Your task to perform on an android device: open app "Grab" (install if not already installed), go to login, and select forgot password Image 0: 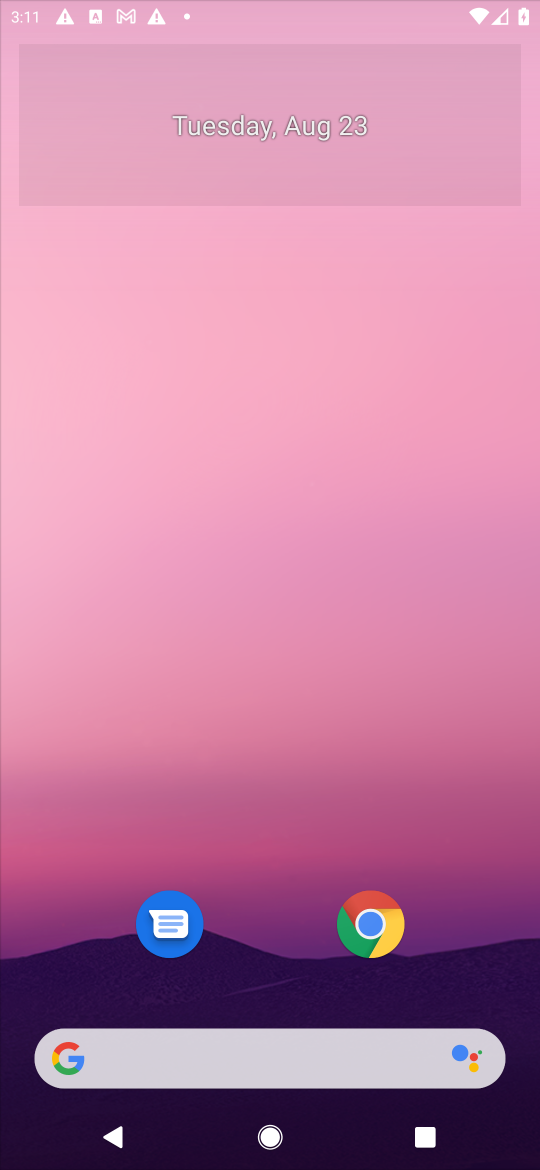
Step 0: press home button
Your task to perform on an android device: open app "Grab" (install if not already installed), go to login, and select forgot password Image 1: 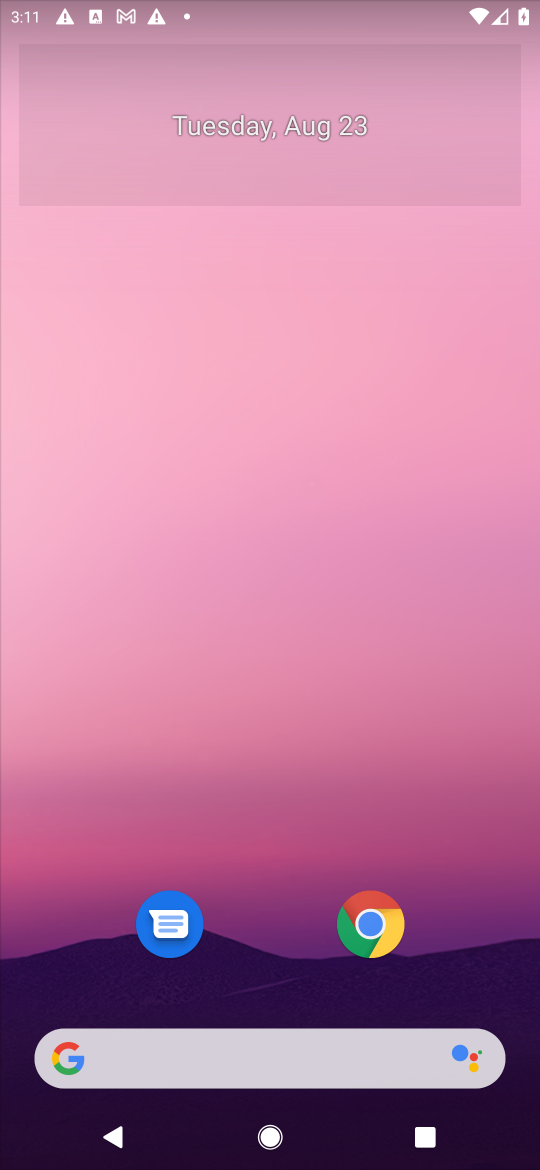
Step 1: drag from (466, 969) to (443, 150)
Your task to perform on an android device: open app "Grab" (install if not already installed), go to login, and select forgot password Image 2: 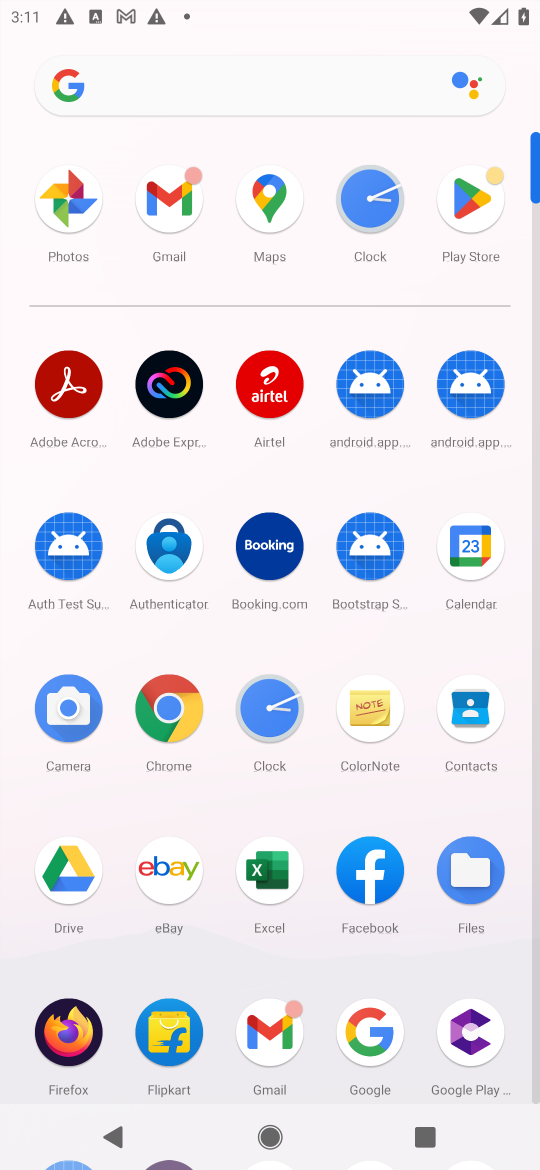
Step 2: click (465, 201)
Your task to perform on an android device: open app "Grab" (install if not already installed), go to login, and select forgot password Image 3: 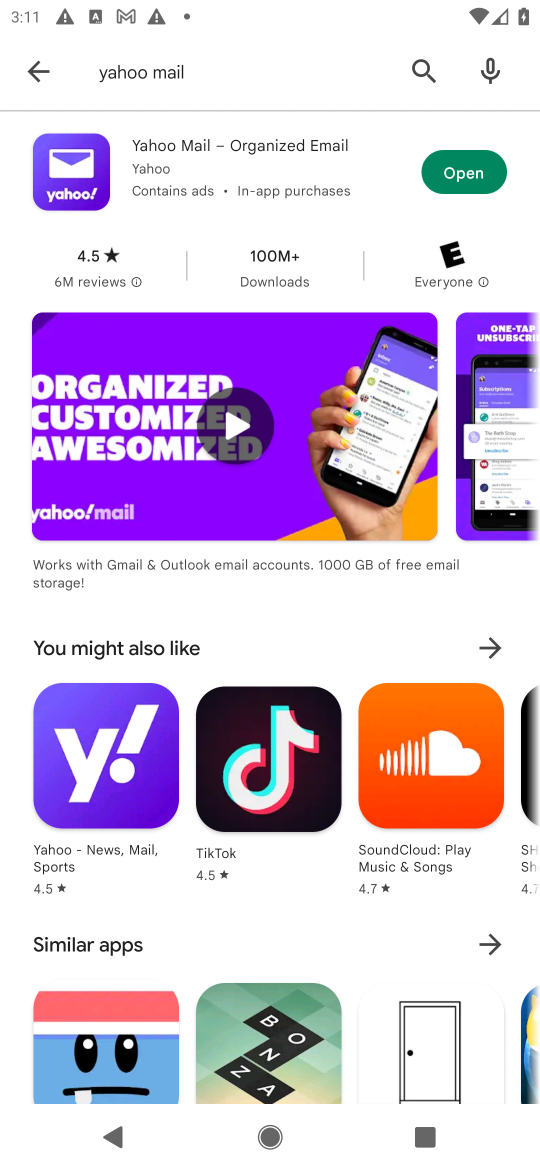
Step 3: press back button
Your task to perform on an android device: open app "Grab" (install if not already installed), go to login, and select forgot password Image 4: 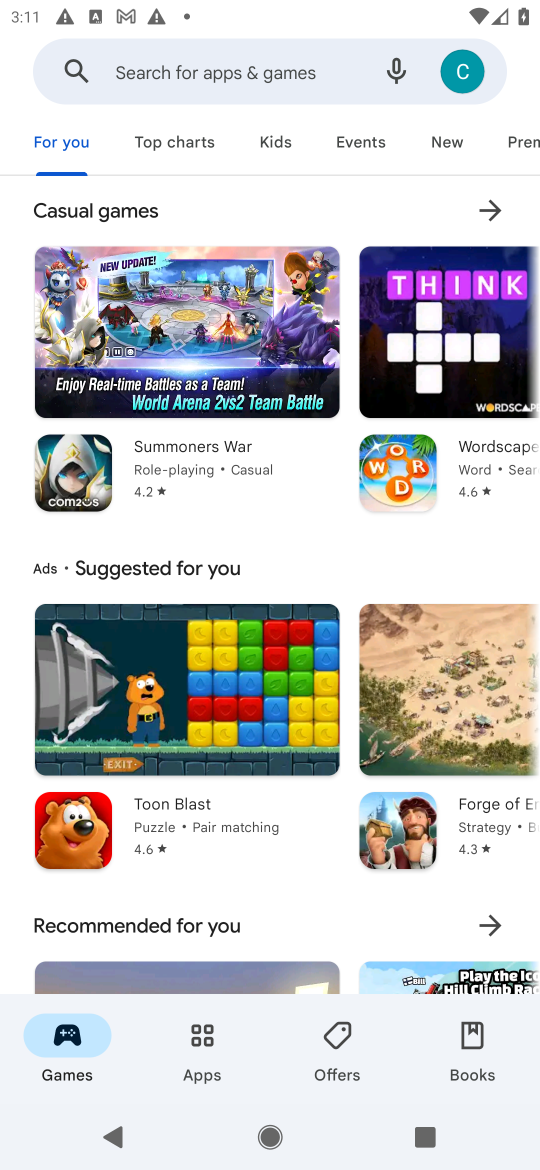
Step 4: click (288, 68)
Your task to perform on an android device: open app "Grab" (install if not already installed), go to login, and select forgot password Image 5: 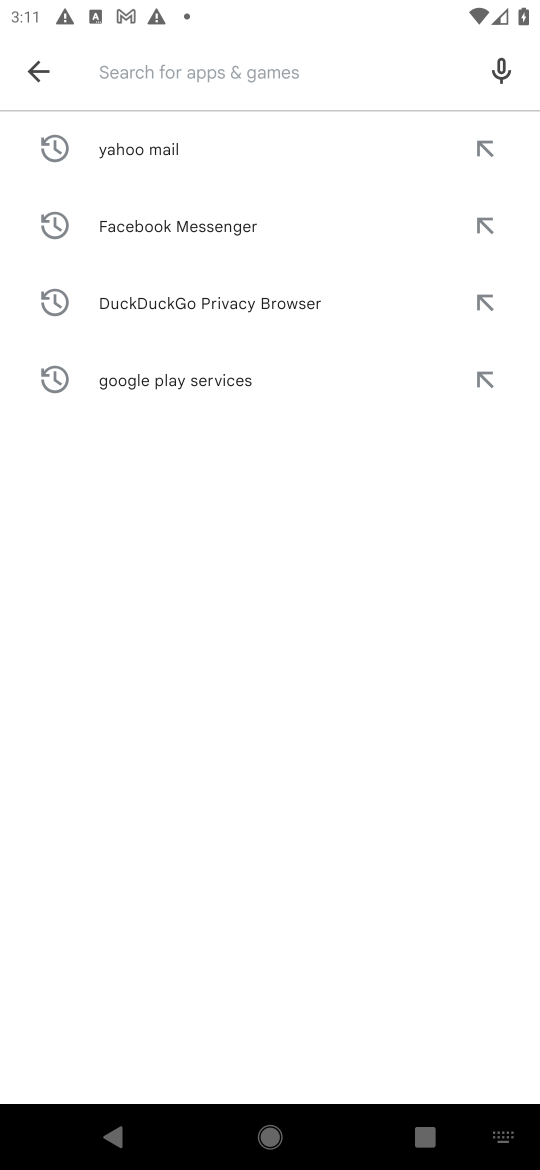
Step 5: press enter
Your task to perform on an android device: open app "Grab" (install if not already installed), go to login, and select forgot password Image 6: 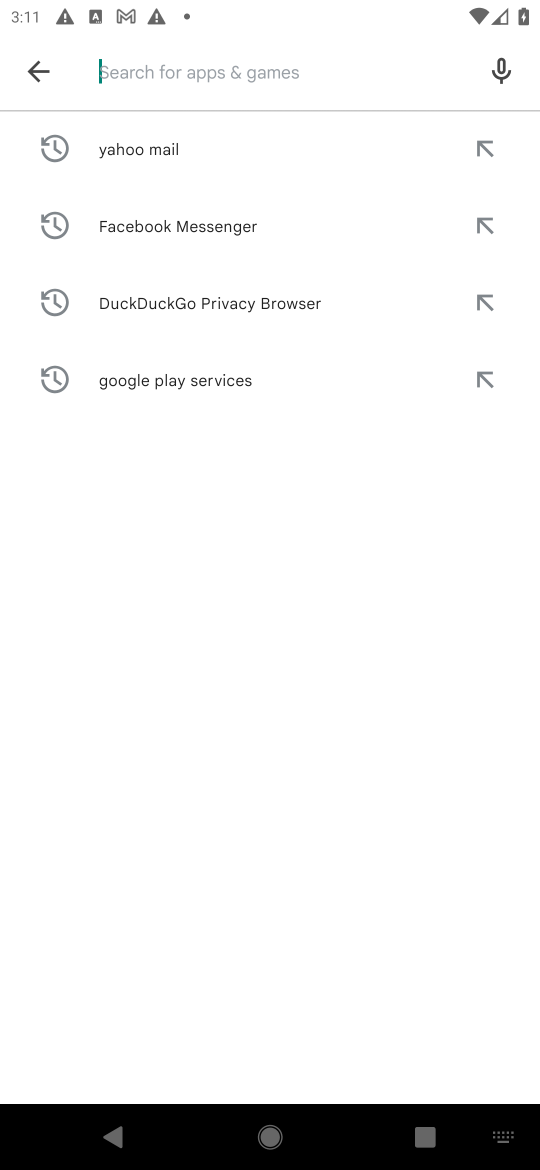
Step 6: type "grab"
Your task to perform on an android device: open app "Grab" (install if not already installed), go to login, and select forgot password Image 7: 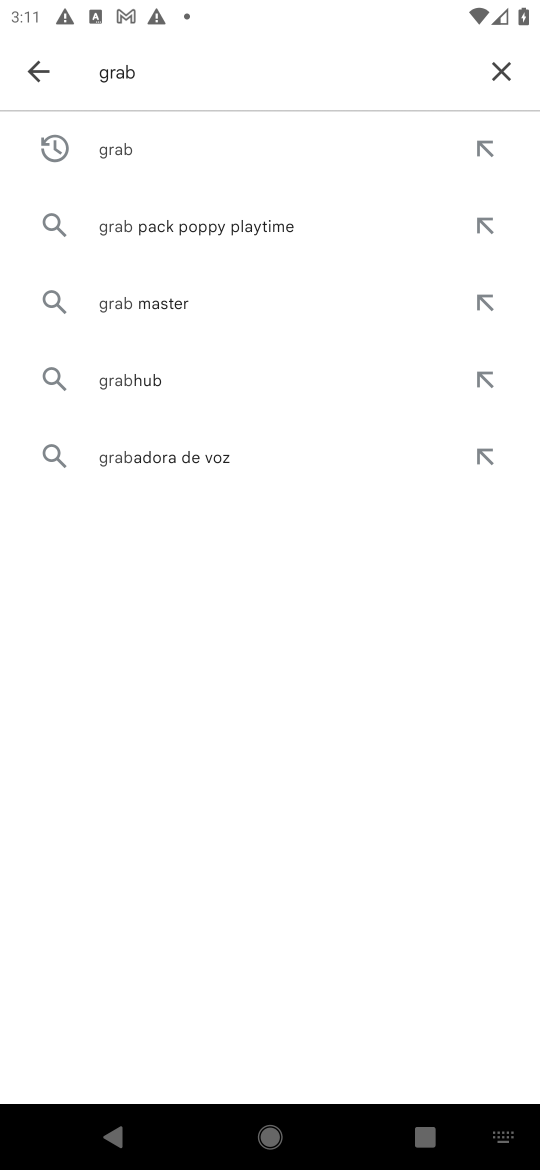
Step 7: click (158, 151)
Your task to perform on an android device: open app "Grab" (install if not already installed), go to login, and select forgot password Image 8: 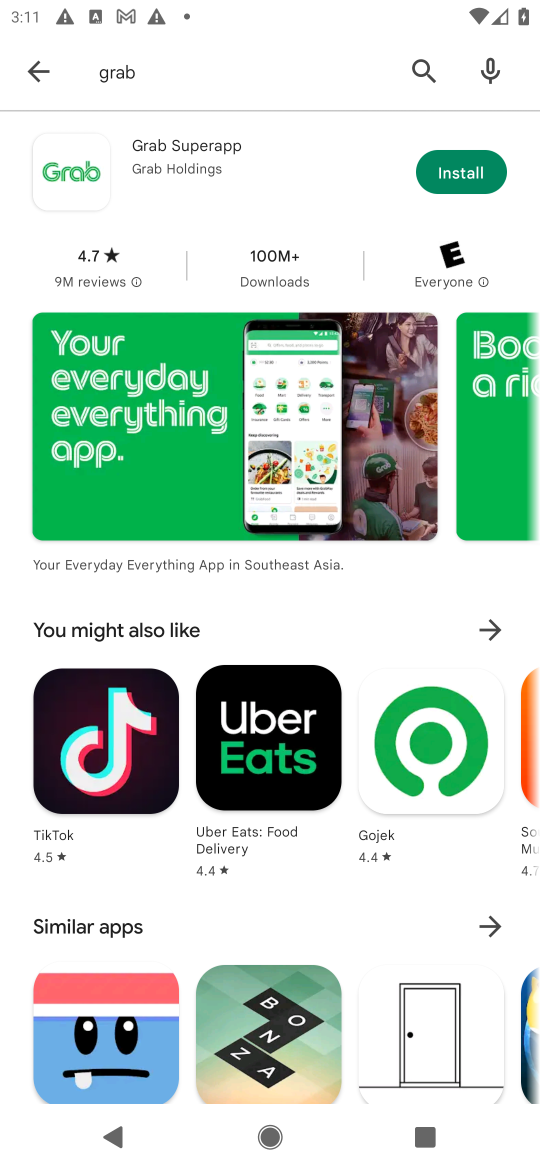
Step 8: click (471, 174)
Your task to perform on an android device: open app "Grab" (install if not already installed), go to login, and select forgot password Image 9: 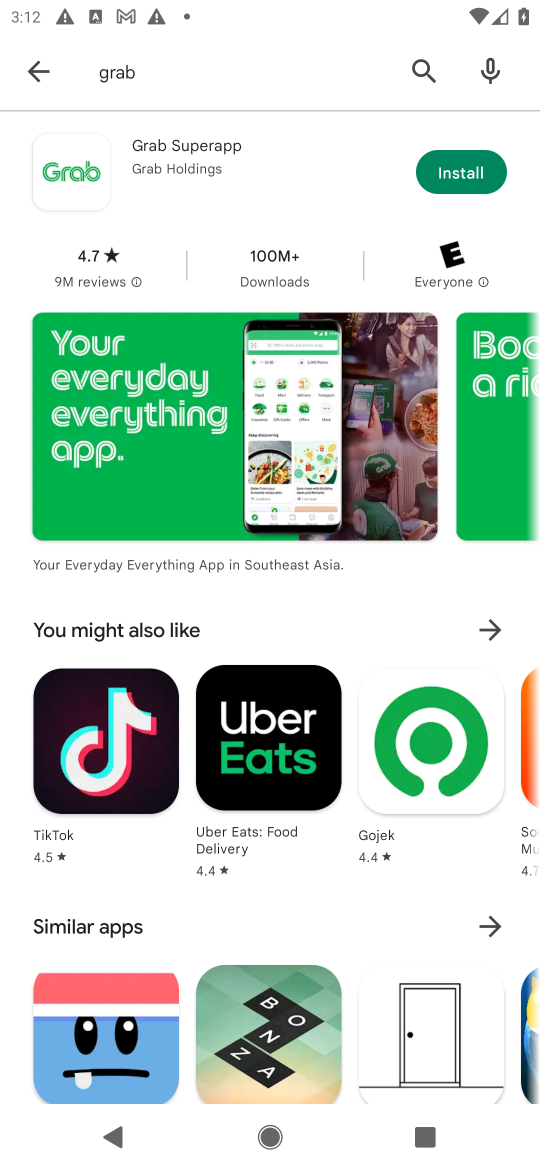
Step 9: task complete